Your task to perform on an android device: Search for vegetarian restaurants on Maps Image 0: 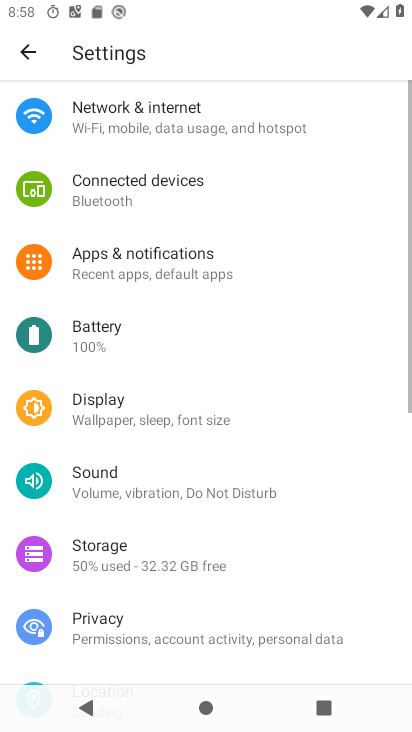
Step 0: press home button
Your task to perform on an android device: Search for vegetarian restaurants on Maps Image 1: 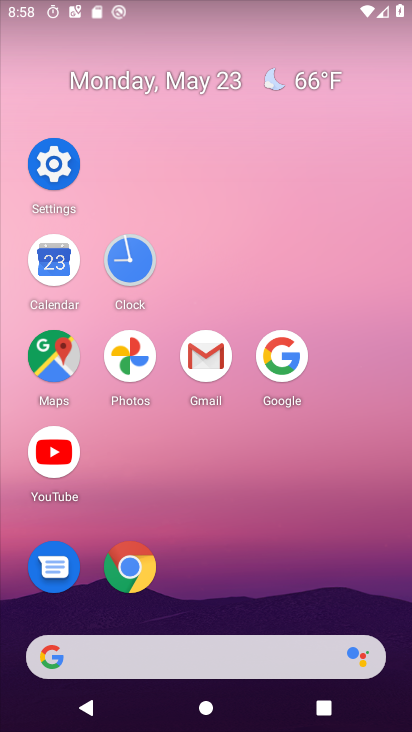
Step 1: click (80, 352)
Your task to perform on an android device: Search for vegetarian restaurants on Maps Image 2: 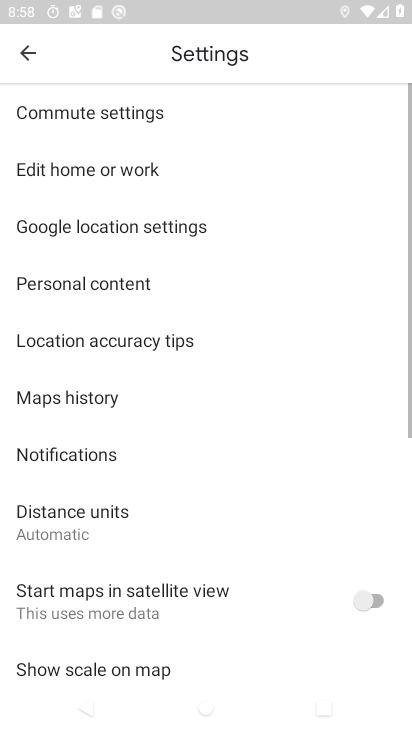
Step 2: click (34, 59)
Your task to perform on an android device: Search for vegetarian restaurants on Maps Image 3: 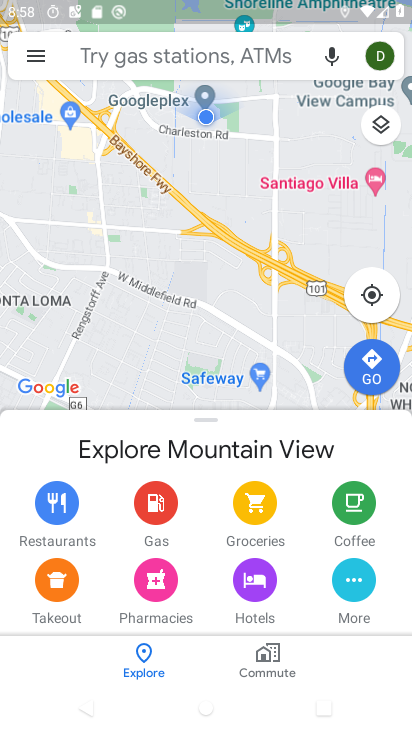
Step 3: click (164, 58)
Your task to perform on an android device: Search for vegetarian restaurants on Maps Image 4: 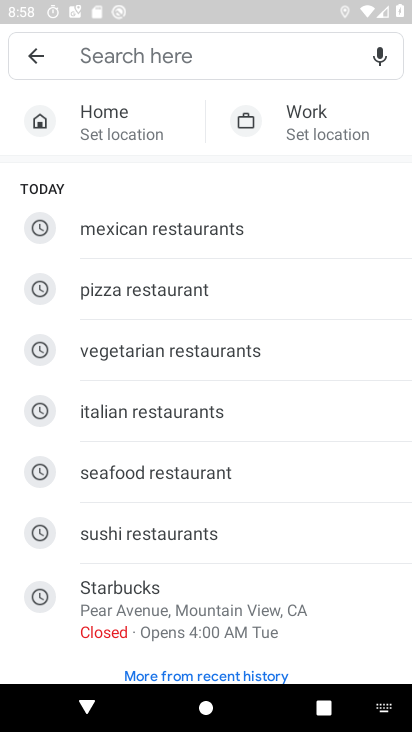
Step 4: click (170, 347)
Your task to perform on an android device: Search for vegetarian restaurants on Maps Image 5: 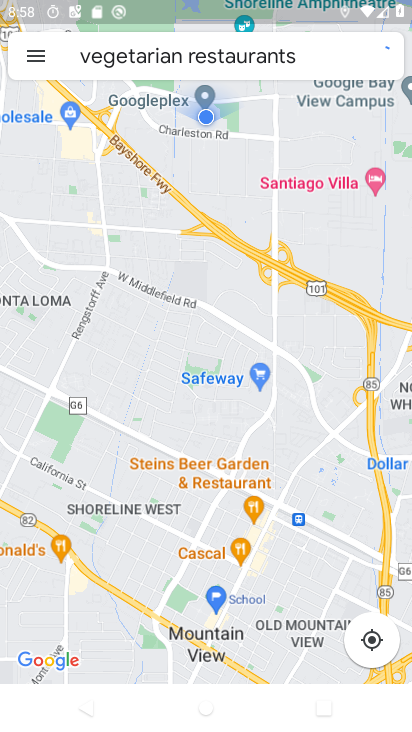
Step 5: task complete